Your task to perform on an android device: open app "ZOOM Cloud Meetings" (install if not already installed) and enter user name: "bauxite@icloud.com" and password: "dim" Image 0: 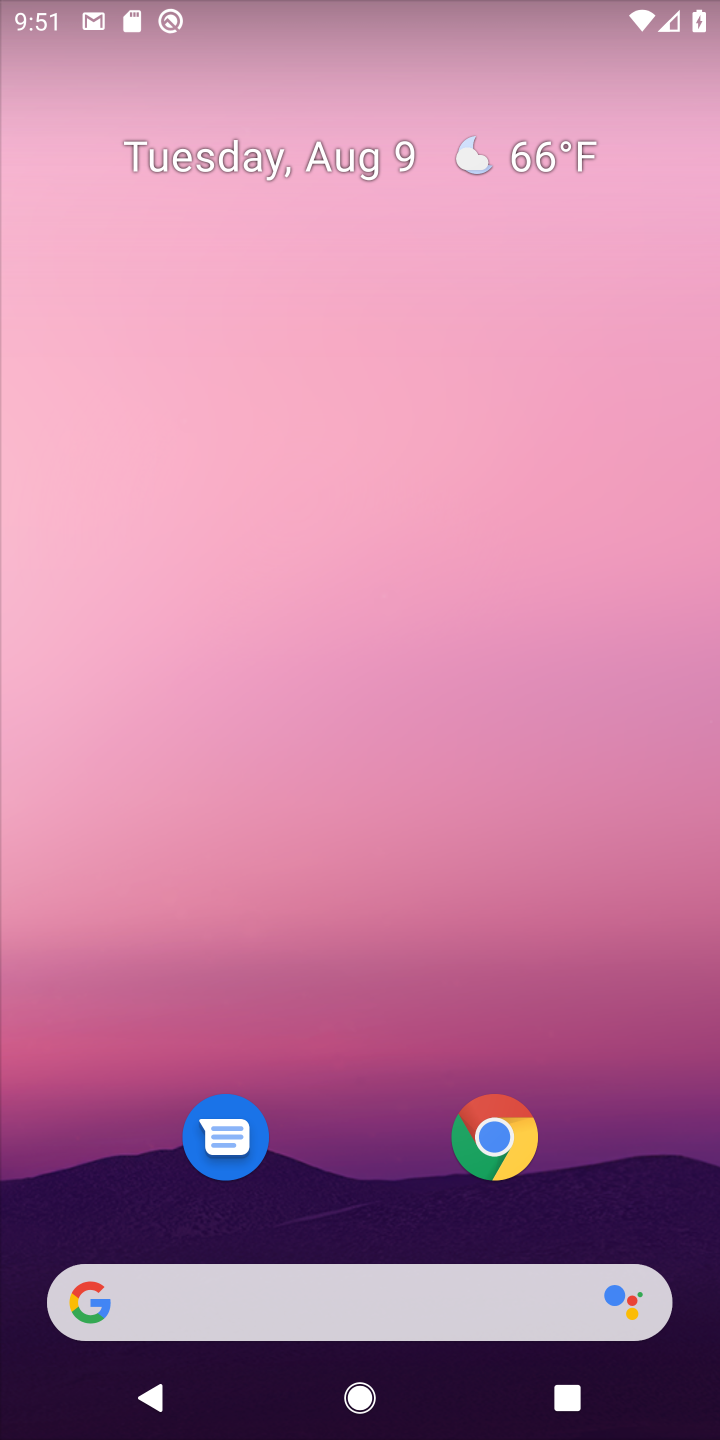
Step 0: drag from (359, 930) to (338, 286)
Your task to perform on an android device: open app "ZOOM Cloud Meetings" (install if not already installed) and enter user name: "bauxite@icloud.com" and password: "dim" Image 1: 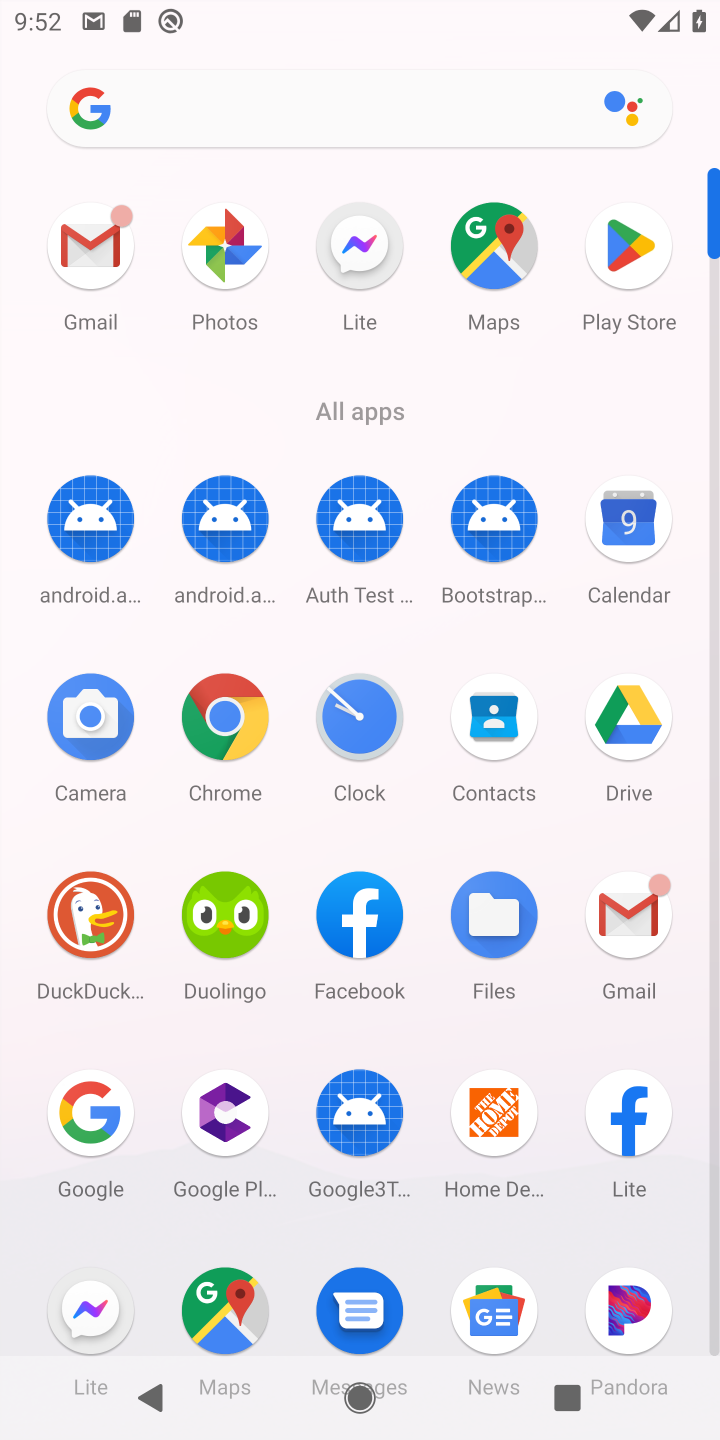
Step 1: click (653, 252)
Your task to perform on an android device: open app "ZOOM Cloud Meetings" (install if not already installed) and enter user name: "bauxite@icloud.com" and password: "dim" Image 2: 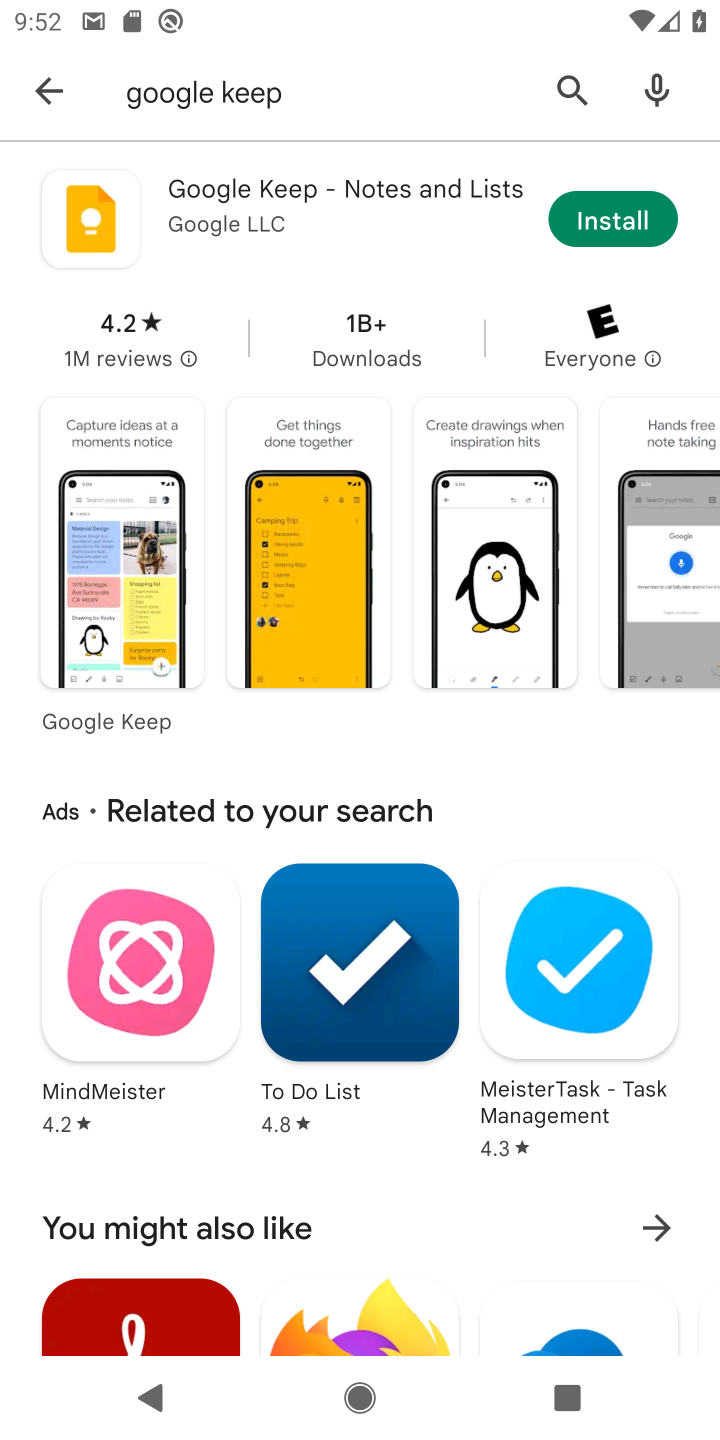
Step 2: click (573, 72)
Your task to perform on an android device: open app "ZOOM Cloud Meetings" (install if not already installed) and enter user name: "bauxite@icloud.com" and password: "dim" Image 3: 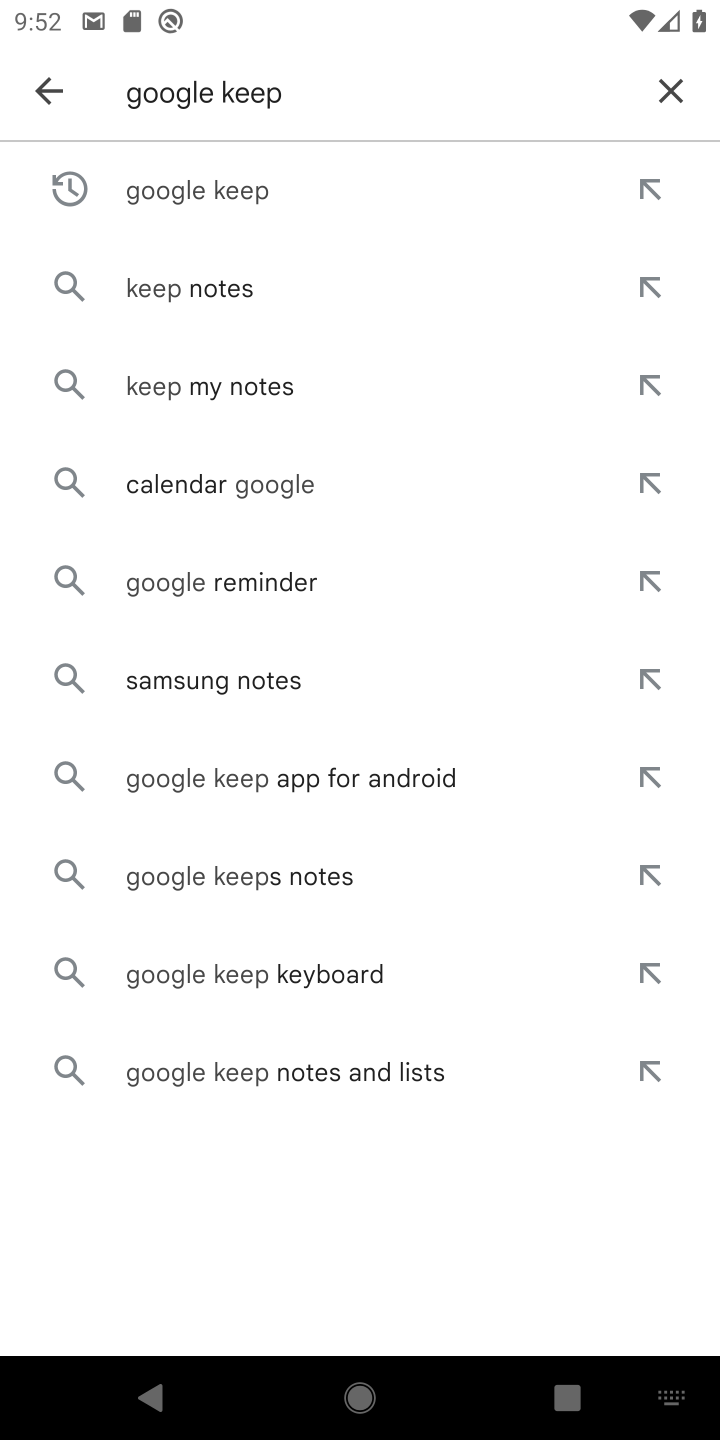
Step 3: click (676, 90)
Your task to perform on an android device: open app "ZOOM Cloud Meetings" (install if not already installed) and enter user name: "bauxite@icloud.com" and password: "dim" Image 4: 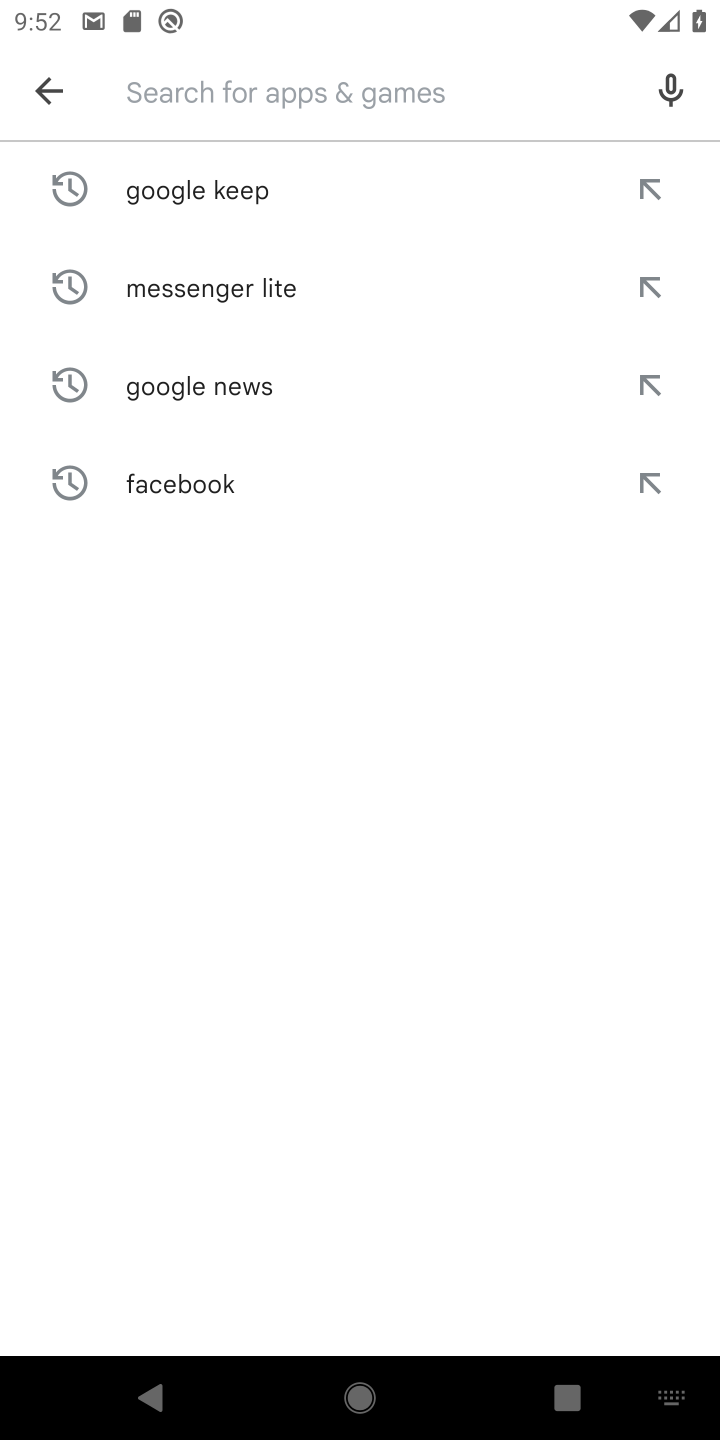
Step 4: type "ZOOM Cloud Meeting"
Your task to perform on an android device: open app "ZOOM Cloud Meetings" (install if not already installed) and enter user name: "bauxite@icloud.com" and password: "dim" Image 5: 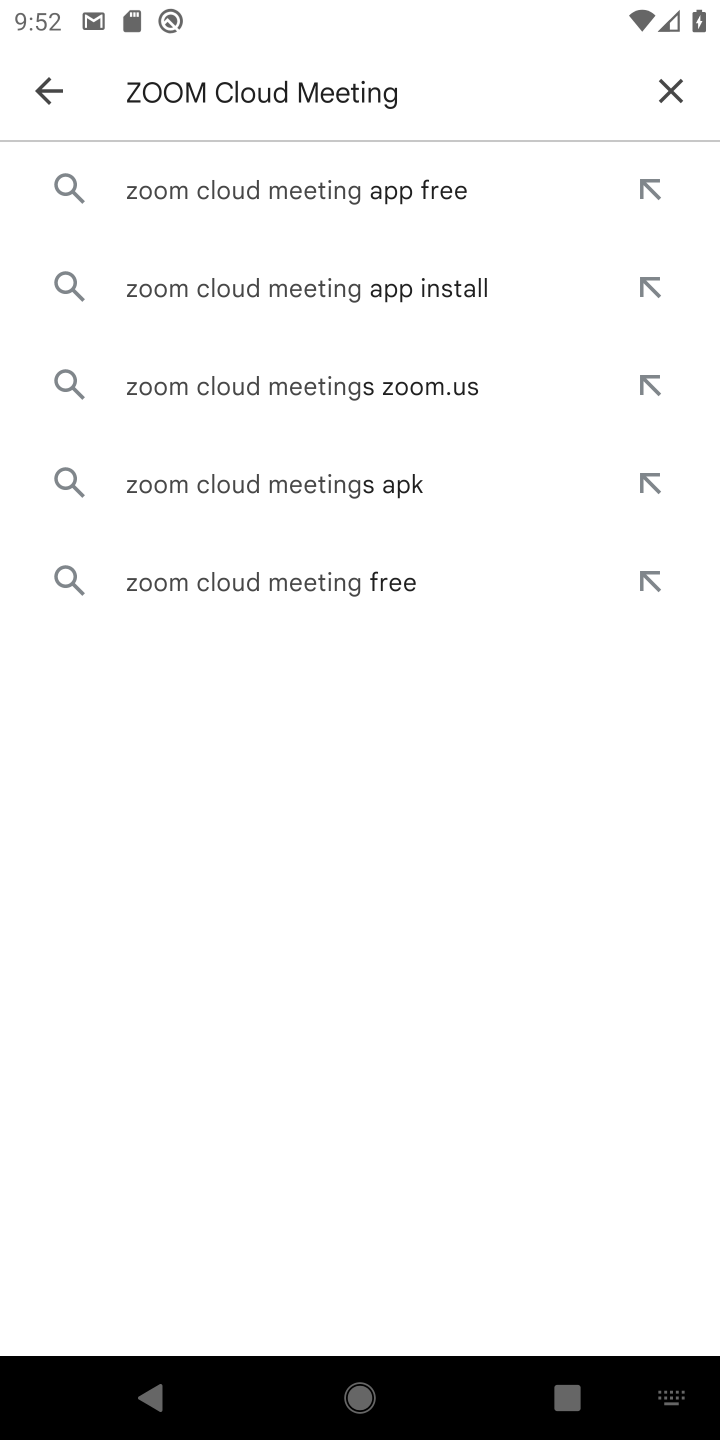
Step 5: click (346, 273)
Your task to perform on an android device: open app "ZOOM Cloud Meetings" (install if not already installed) and enter user name: "bauxite@icloud.com" and password: "dim" Image 6: 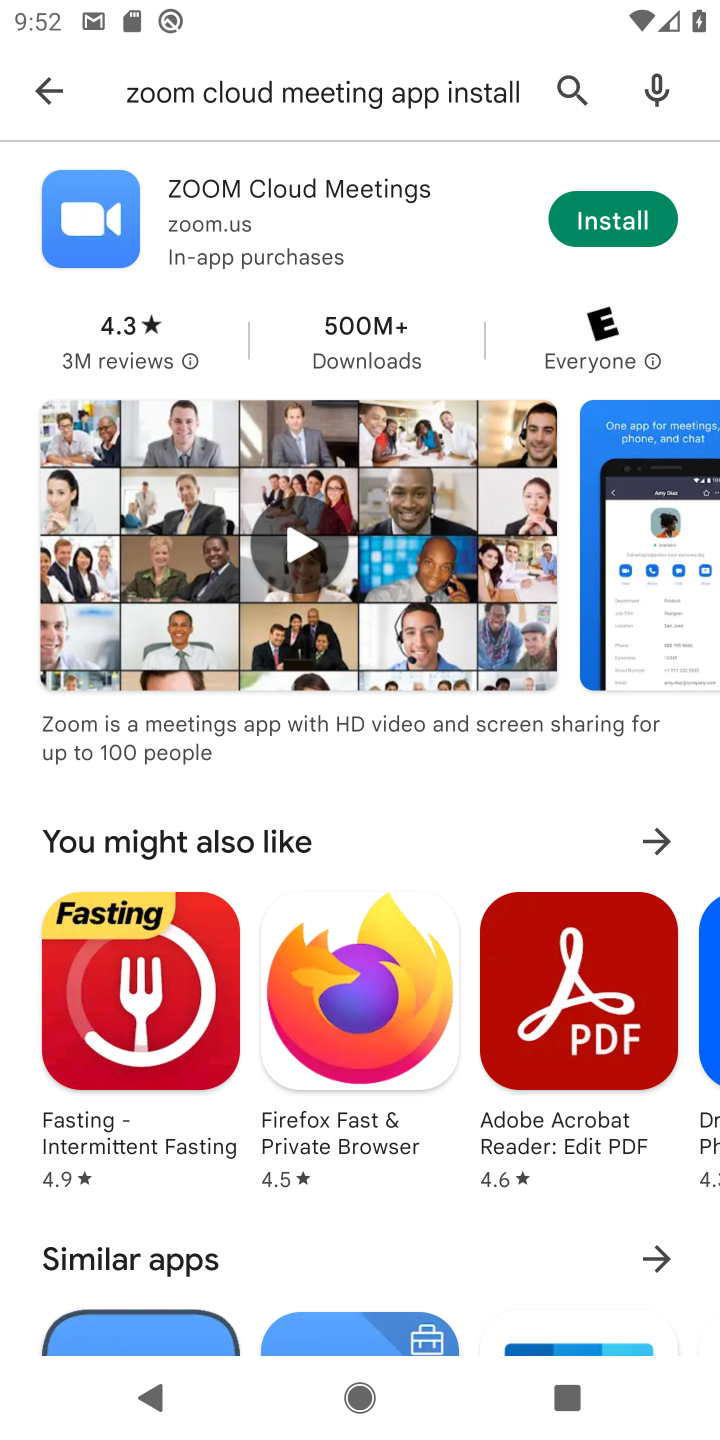
Step 6: click (604, 236)
Your task to perform on an android device: open app "ZOOM Cloud Meetings" (install if not already installed) and enter user name: "bauxite@icloud.com" and password: "dim" Image 7: 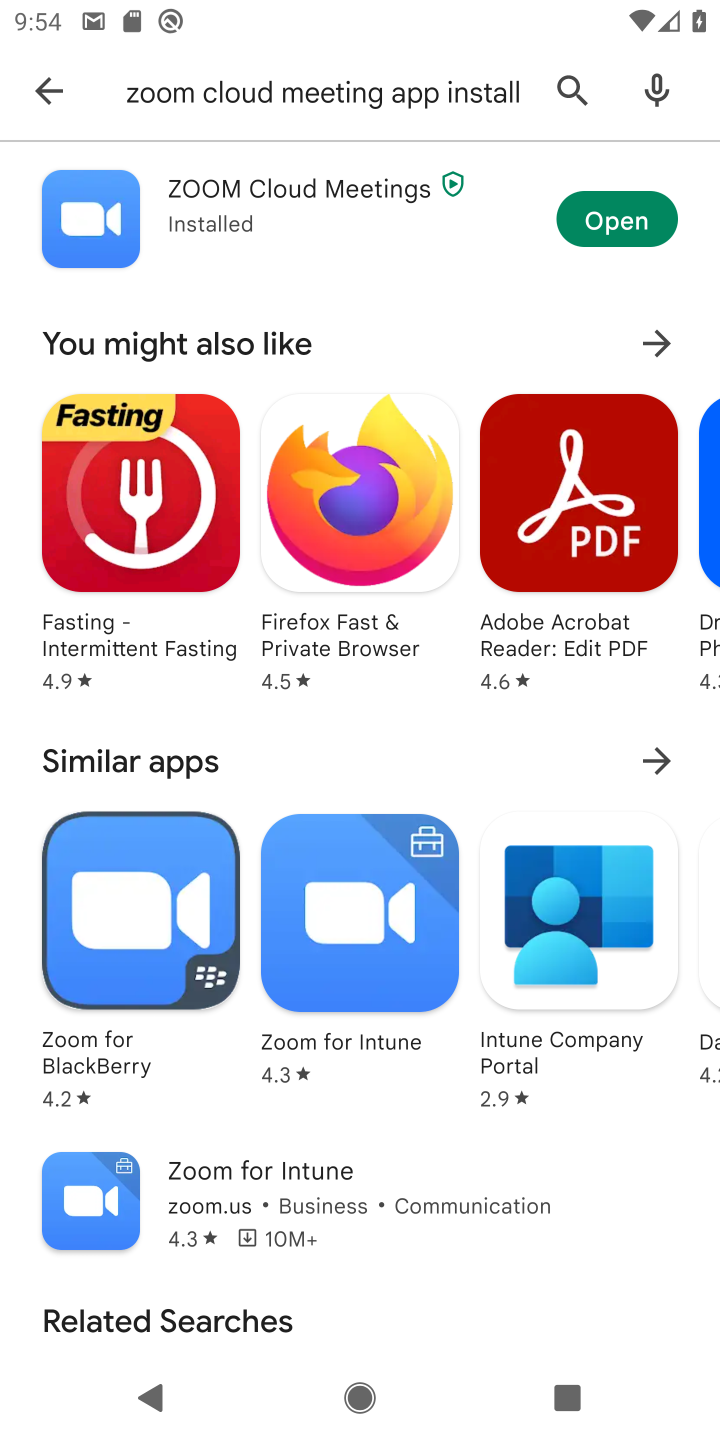
Step 7: click (577, 216)
Your task to perform on an android device: open app "ZOOM Cloud Meetings" (install if not already installed) and enter user name: "bauxite@icloud.com" and password: "dim" Image 8: 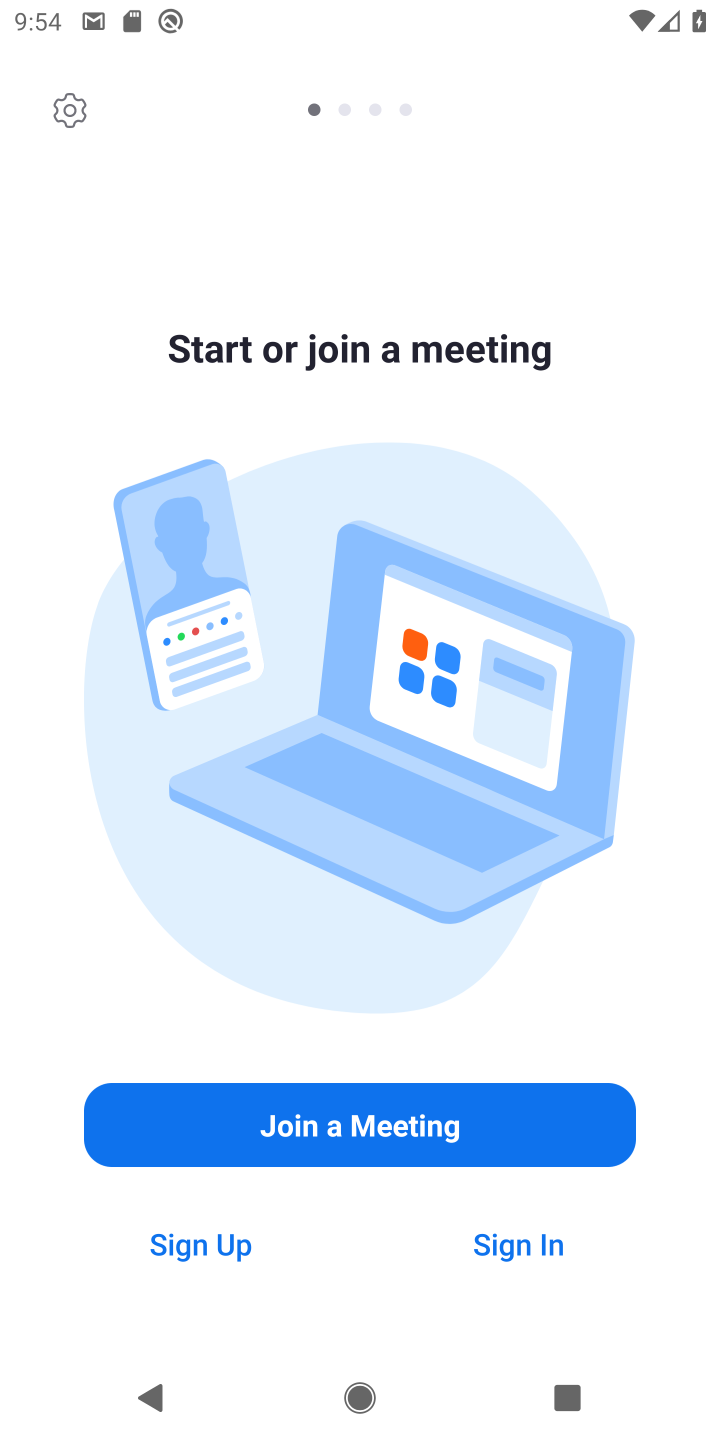
Step 8: task complete